Your task to perform on an android device: delete browsing data in the chrome app Image 0: 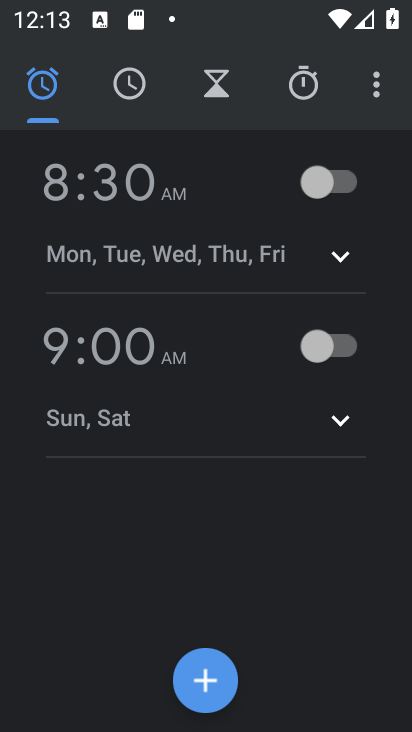
Step 0: press home button
Your task to perform on an android device: delete browsing data in the chrome app Image 1: 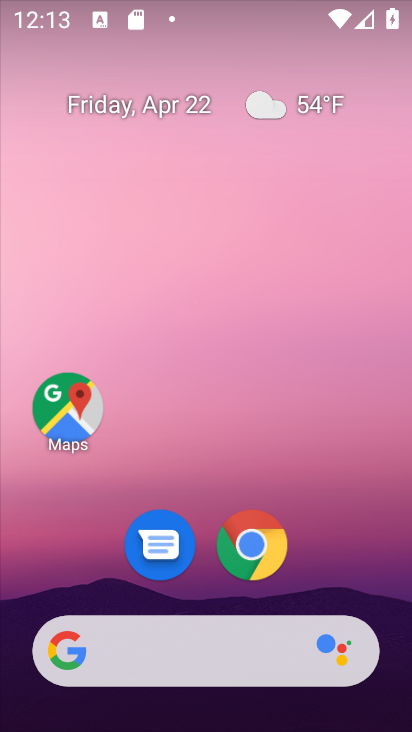
Step 1: click (270, 564)
Your task to perform on an android device: delete browsing data in the chrome app Image 2: 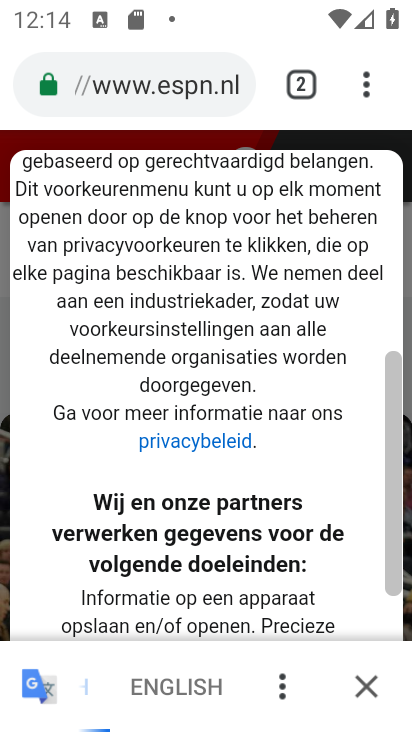
Step 2: click (363, 83)
Your task to perform on an android device: delete browsing data in the chrome app Image 3: 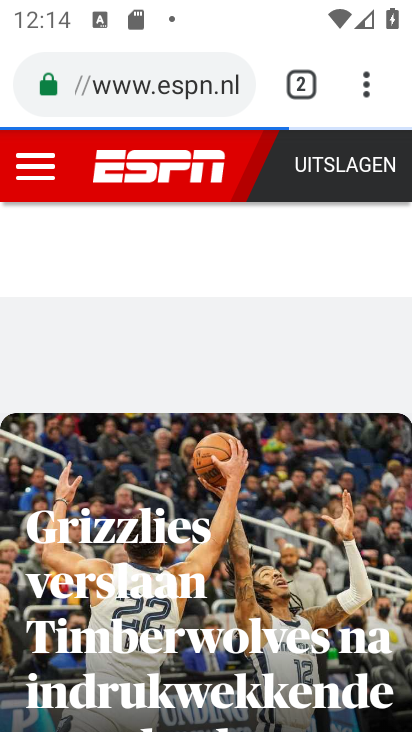
Step 3: click (375, 86)
Your task to perform on an android device: delete browsing data in the chrome app Image 4: 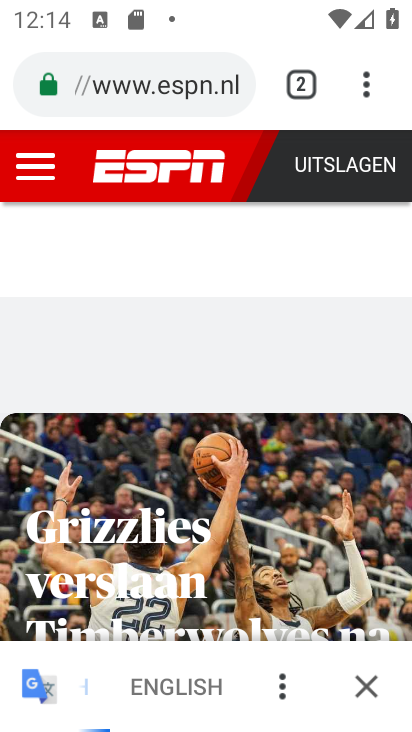
Step 4: click (363, 85)
Your task to perform on an android device: delete browsing data in the chrome app Image 5: 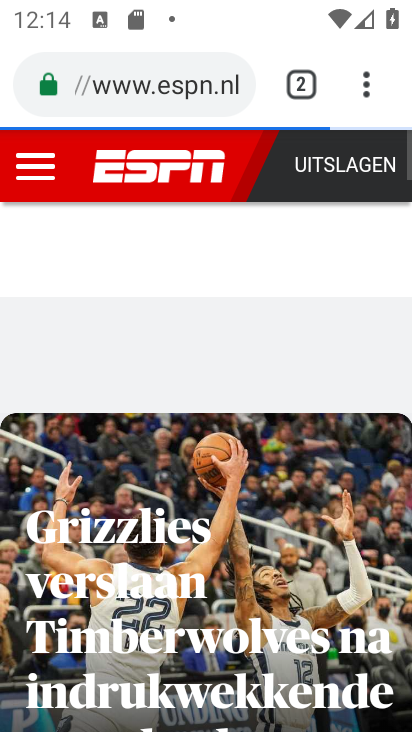
Step 5: click (353, 88)
Your task to perform on an android device: delete browsing data in the chrome app Image 6: 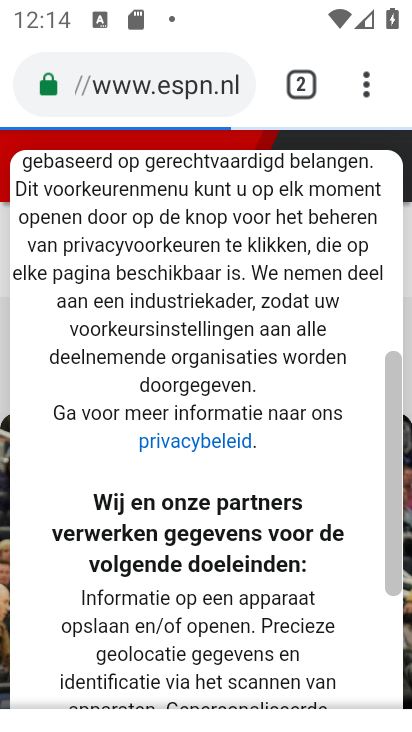
Step 6: click (365, 93)
Your task to perform on an android device: delete browsing data in the chrome app Image 7: 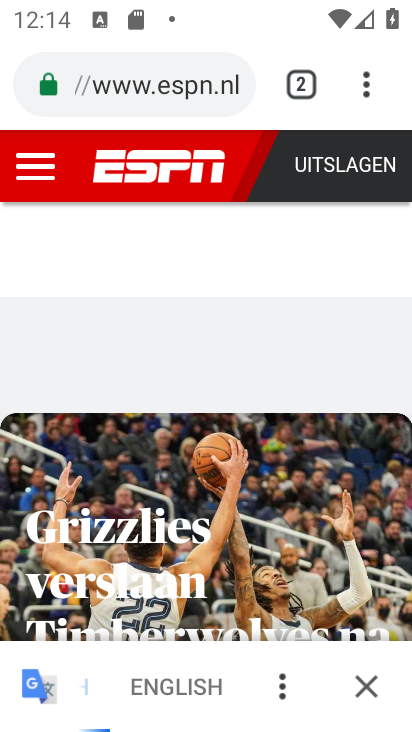
Step 7: click (363, 82)
Your task to perform on an android device: delete browsing data in the chrome app Image 8: 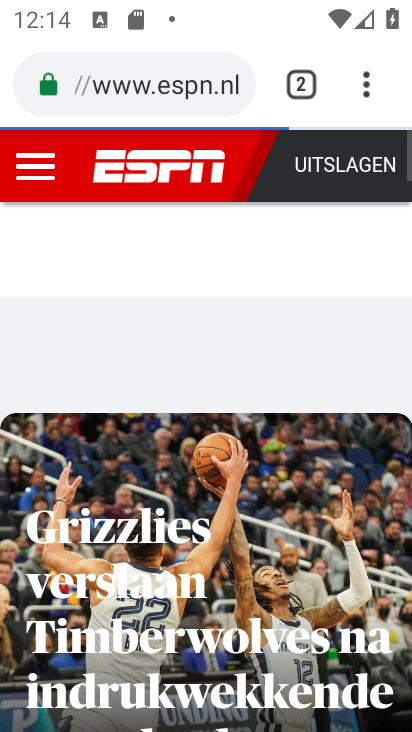
Step 8: click (377, 78)
Your task to perform on an android device: delete browsing data in the chrome app Image 9: 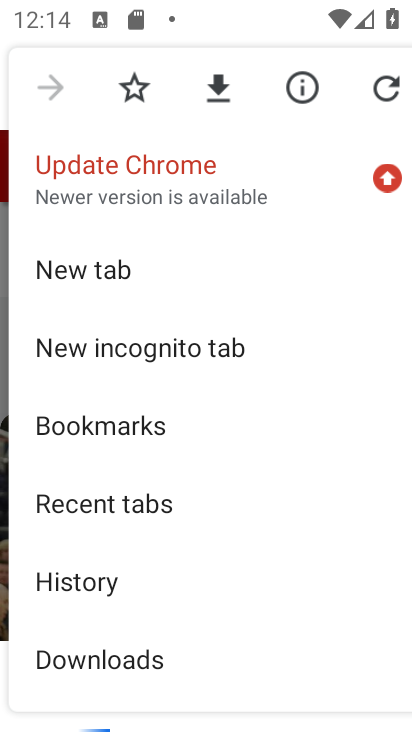
Step 9: click (153, 580)
Your task to perform on an android device: delete browsing data in the chrome app Image 10: 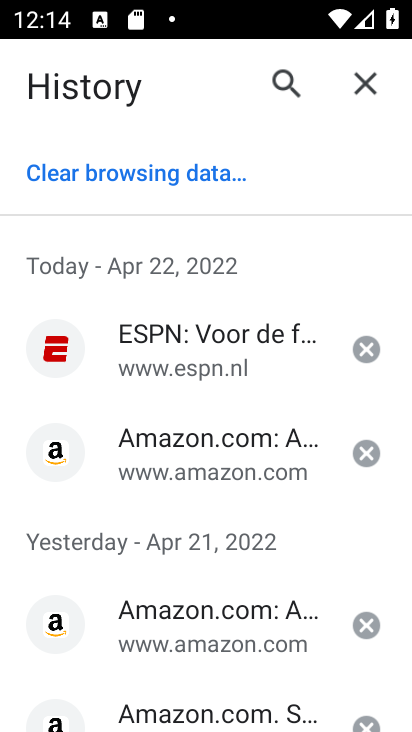
Step 10: click (92, 168)
Your task to perform on an android device: delete browsing data in the chrome app Image 11: 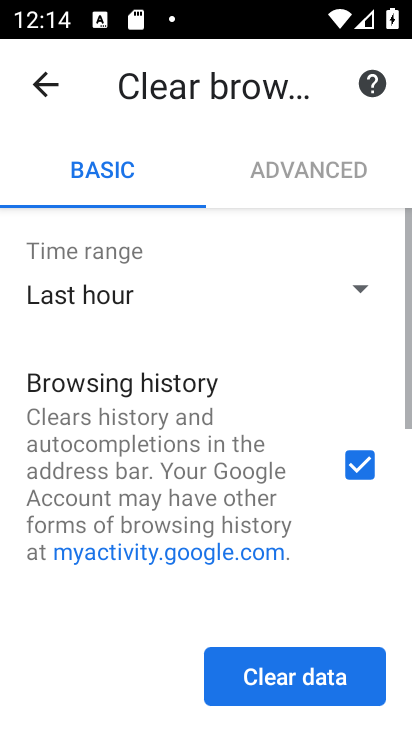
Step 11: click (329, 672)
Your task to perform on an android device: delete browsing data in the chrome app Image 12: 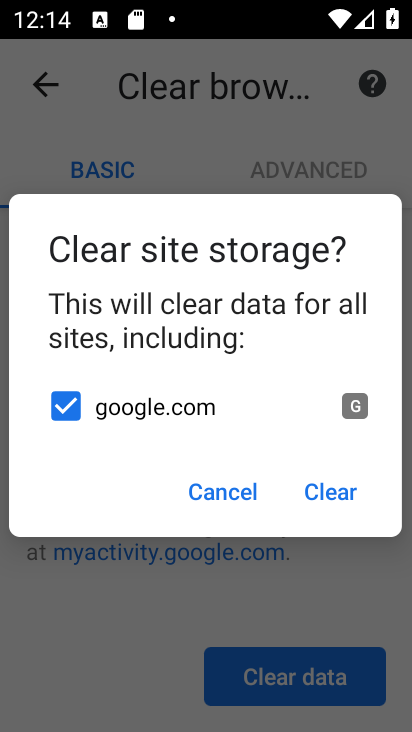
Step 12: click (345, 484)
Your task to perform on an android device: delete browsing data in the chrome app Image 13: 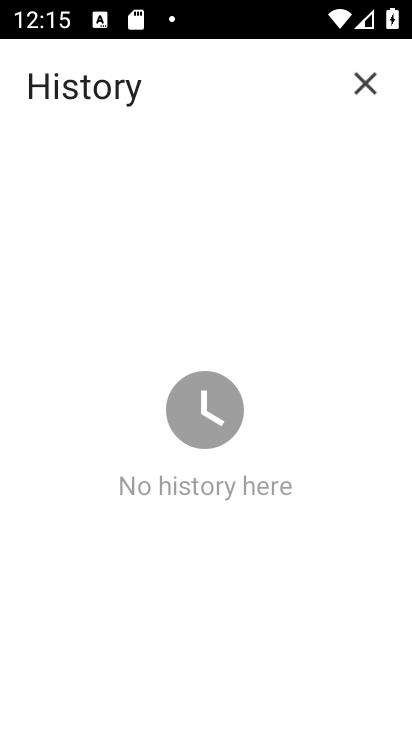
Step 13: task complete